Your task to perform on an android device: open wifi settings Image 0: 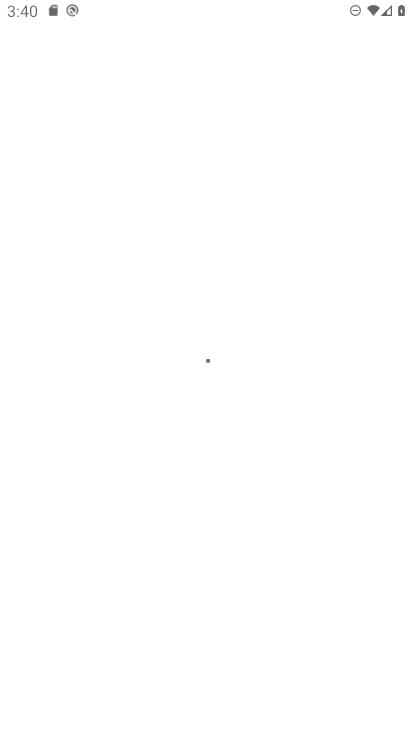
Step 0: press back button
Your task to perform on an android device: open wifi settings Image 1: 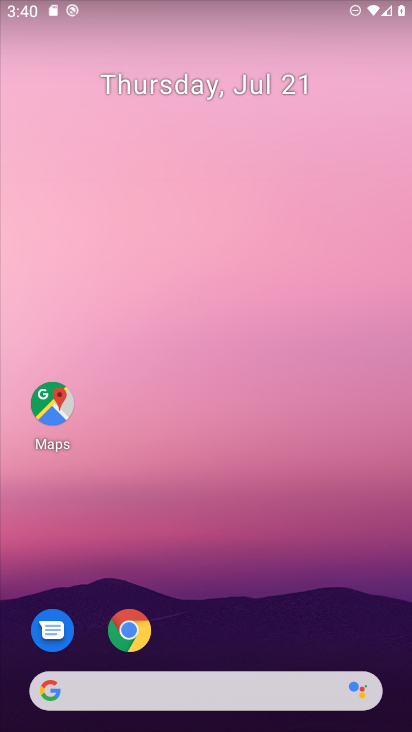
Step 1: drag from (69, 12) to (140, 631)
Your task to perform on an android device: open wifi settings Image 2: 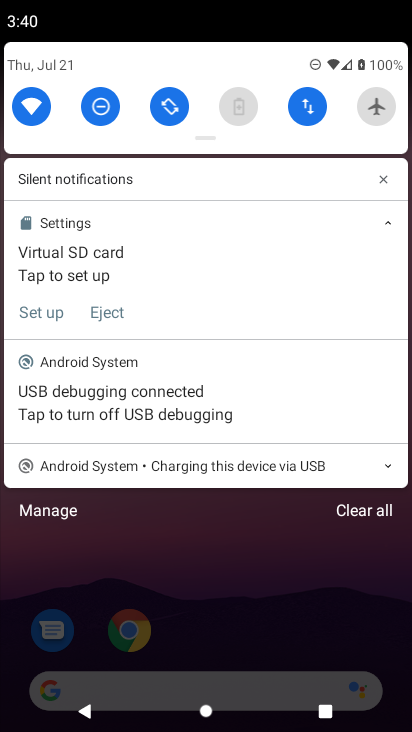
Step 2: click (39, 104)
Your task to perform on an android device: open wifi settings Image 3: 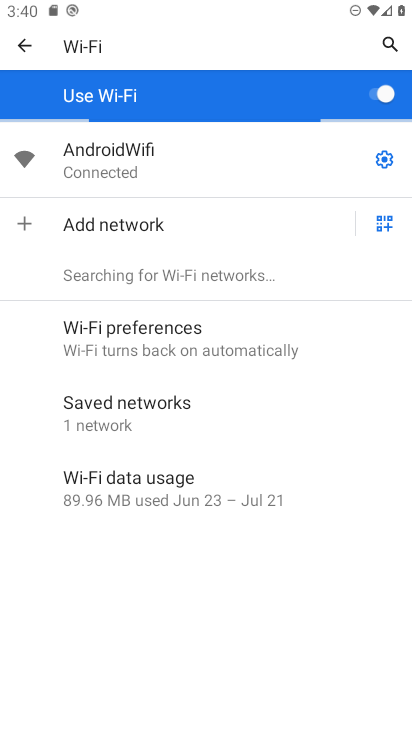
Step 3: task complete